Your task to perform on an android device: Search for Italian restaurants on Maps Image 0: 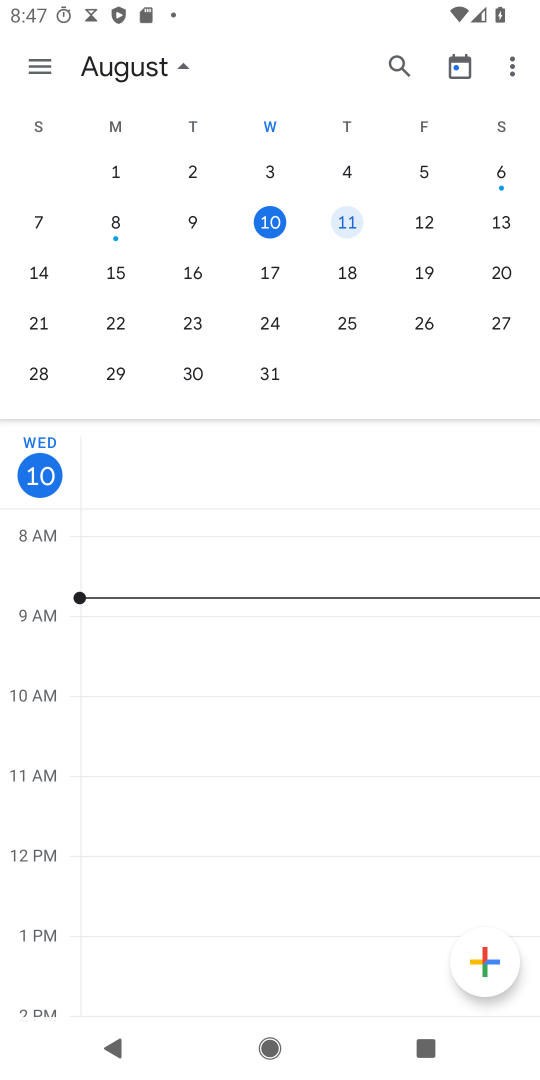
Step 0: press home button
Your task to perform on an android device: Search for Italian restaurants on Maps Image 1: 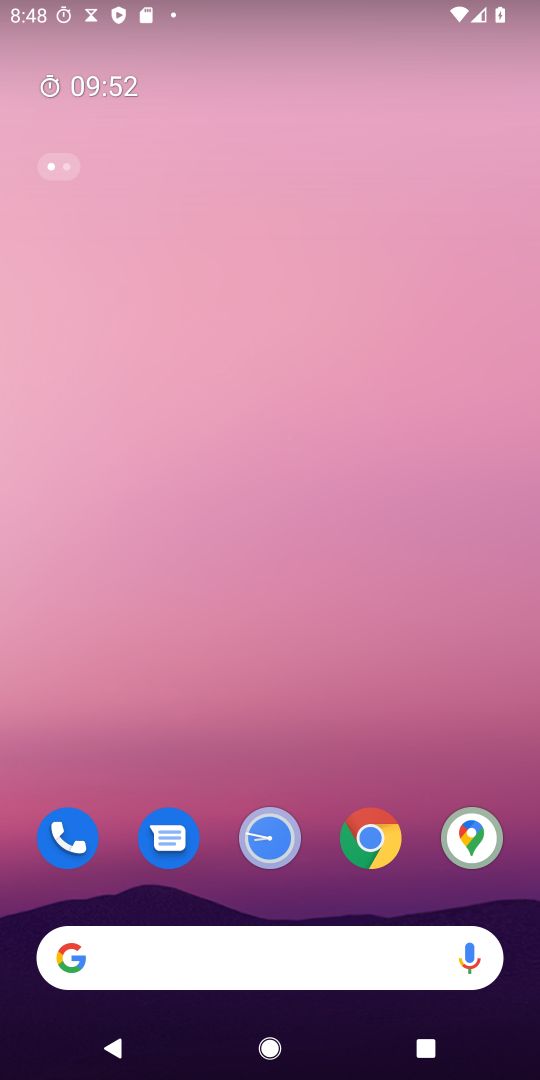
Step 1: drag from (322, 720) to (10, 390)
Your task to perform on an android device: Search for Italian restaurants on Maps Image 2: 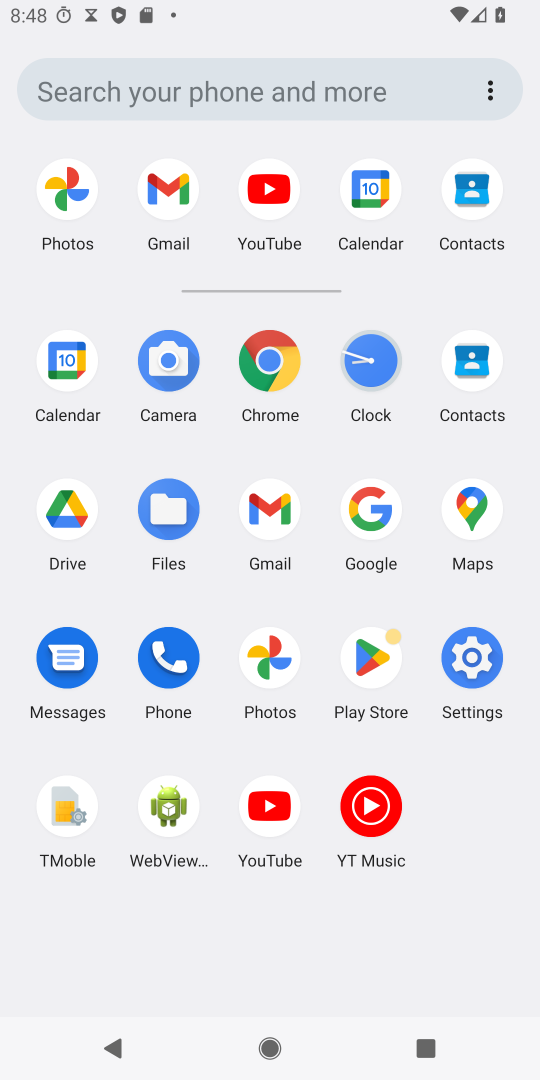
Step 2: click (456, 545)
Your task to perform on an android device: Search for Italian restaurants on Maps Image 3: 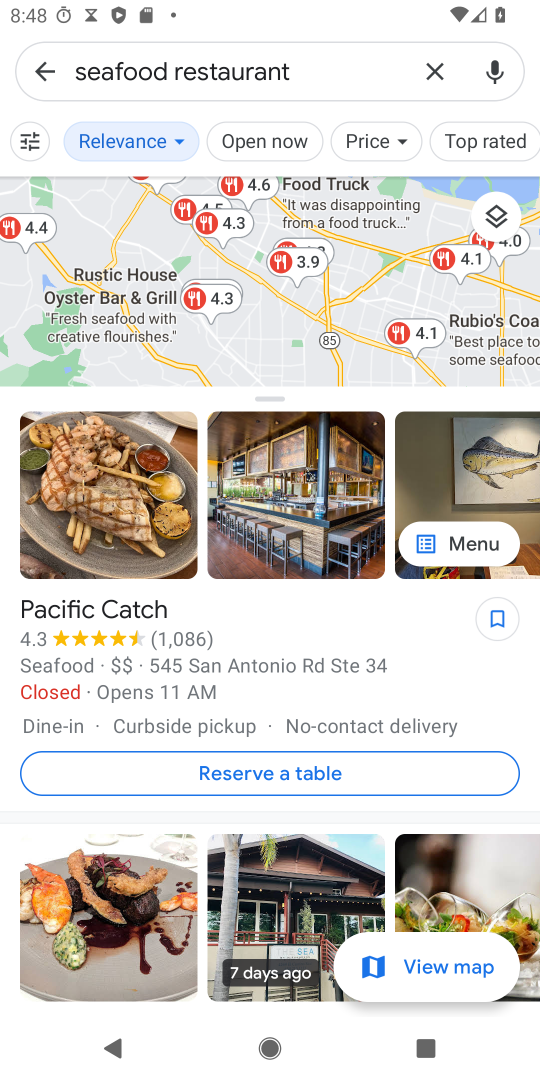
Step 3: click (426, 68)
Your task to perform on an android device: Search for Italian restaurants on Maps Image 4: 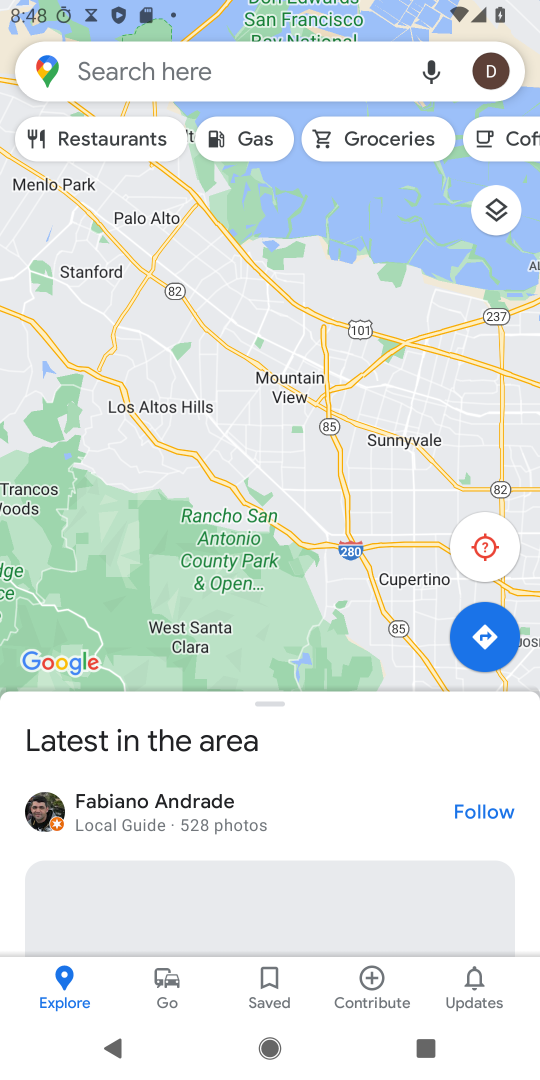
Step 4: click (361, 69)
Your task to perform on an android device: Search for Italian restaurants on Maps Image 5: 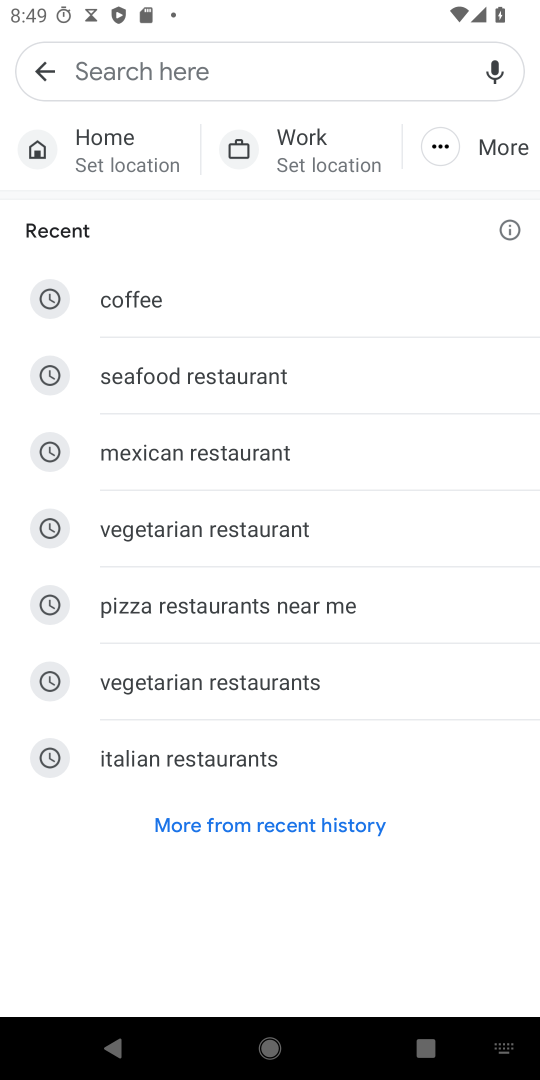
Step 5: type "Italian restaurantsItalian "
Your task to perform on an android device: Search for Italian restaurants on Maps Image 6: 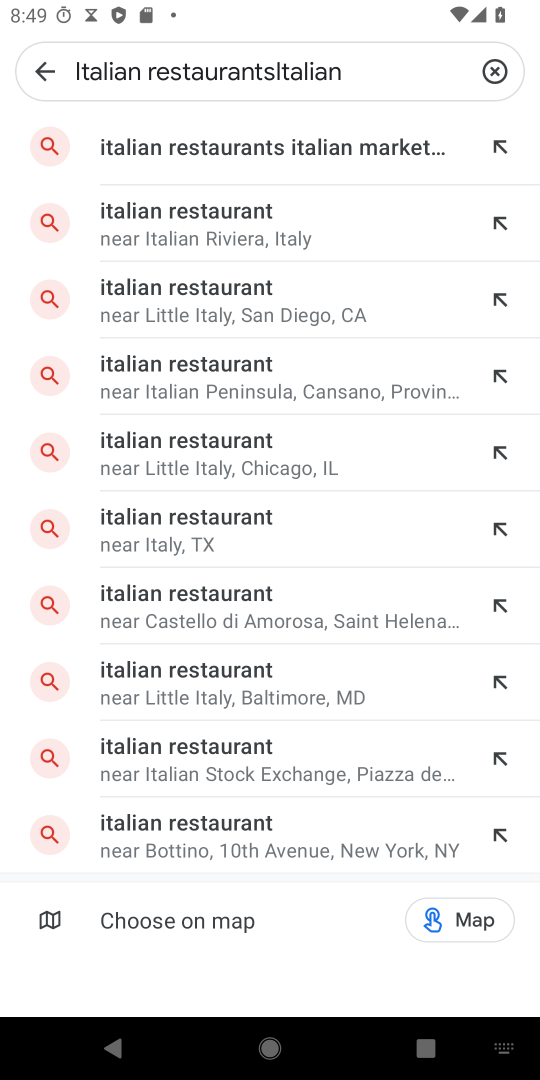
Step 6: click (231, 221)
Your task to perform on an android device: Search for Italian restaurants on Maps Image 7: 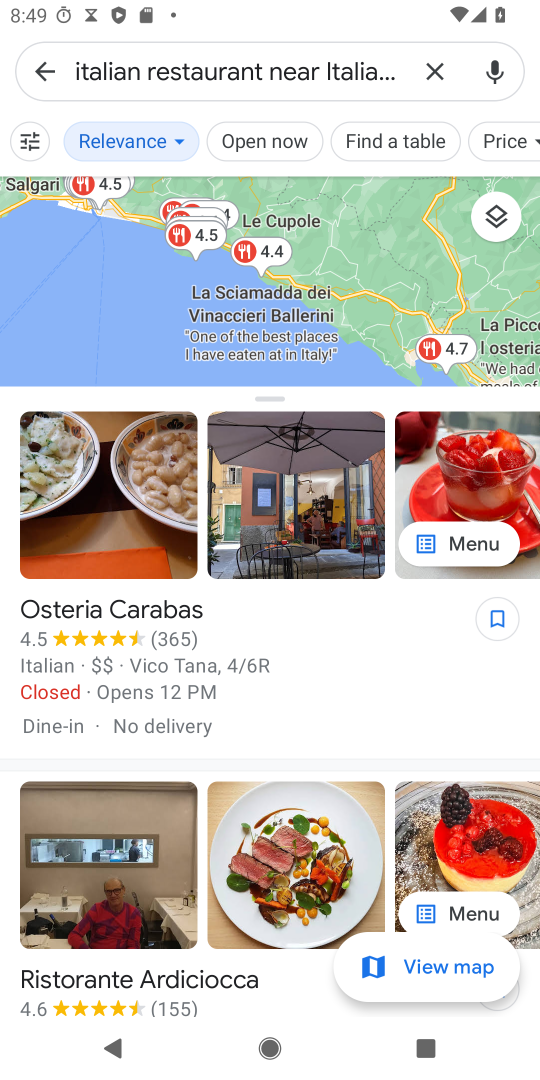
Step 7: task complete